Your task to perform on an android device: move a message to another label in the gmail app Image 0: 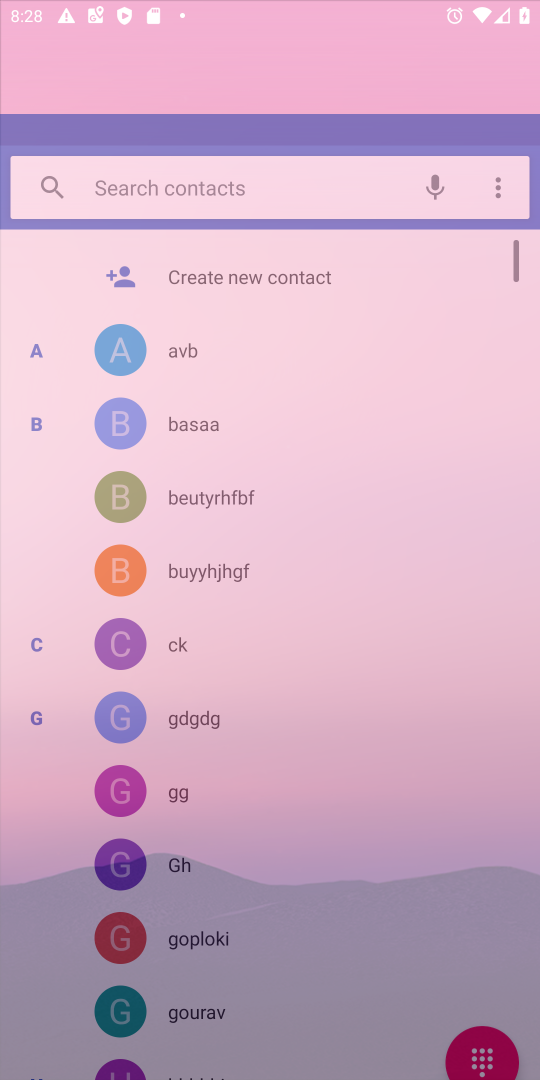
Step 0: press home button
Your task to perform on an android device: move a message to another label in the gmail app Image 1: 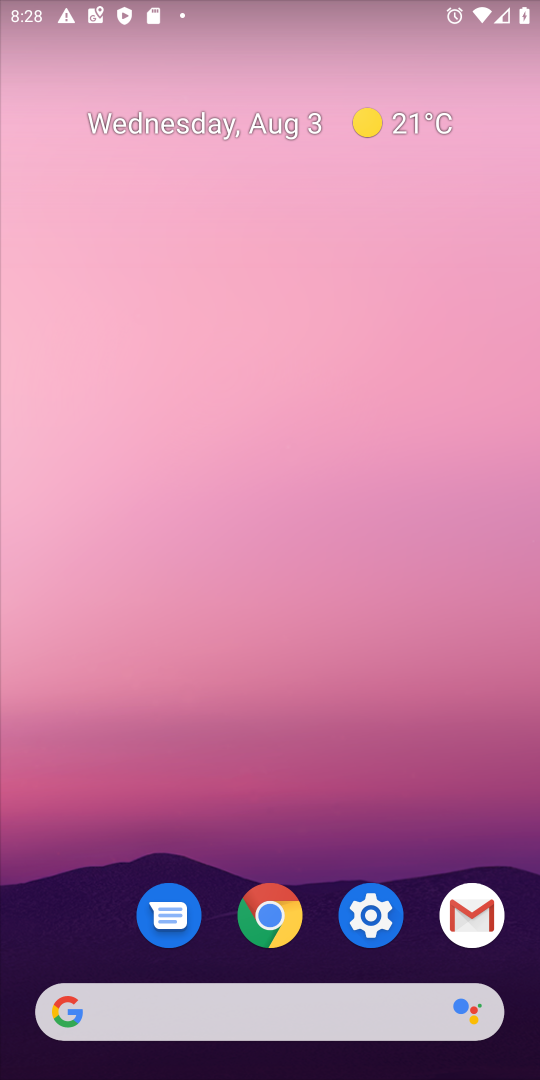
Step 1: drag from (389, 910) to (383, 252)
Your task to perform on an android device: move a message to another label in the gmail app Image 2: 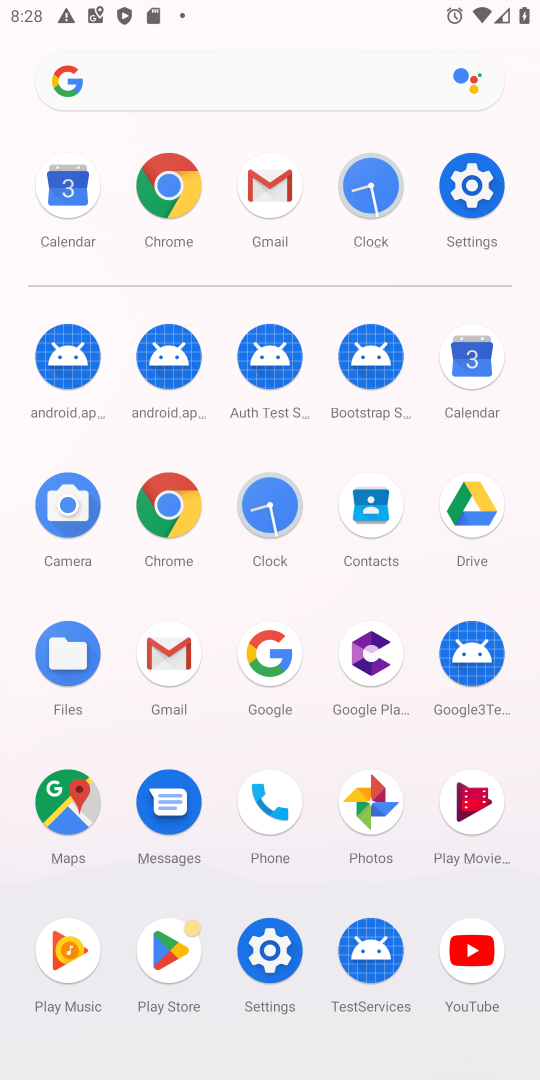
Step 2: click (260, 192)
Your task to perform on an android device: move a message to another label in the gmail app Image 3: 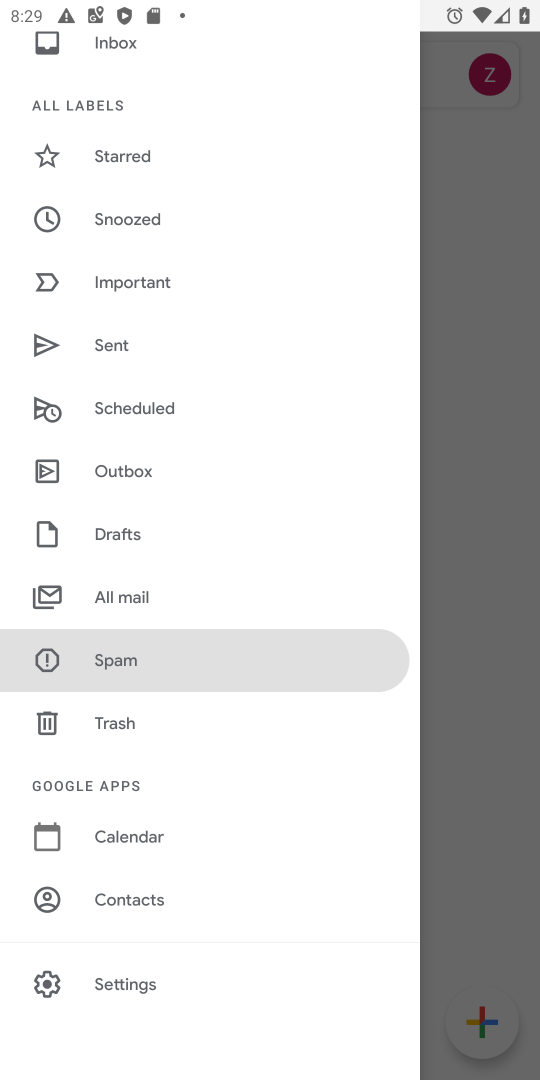
Step 3: click (129, 974)
Your task to perform on an android device: move a message to another label in the gmail app Image 4: 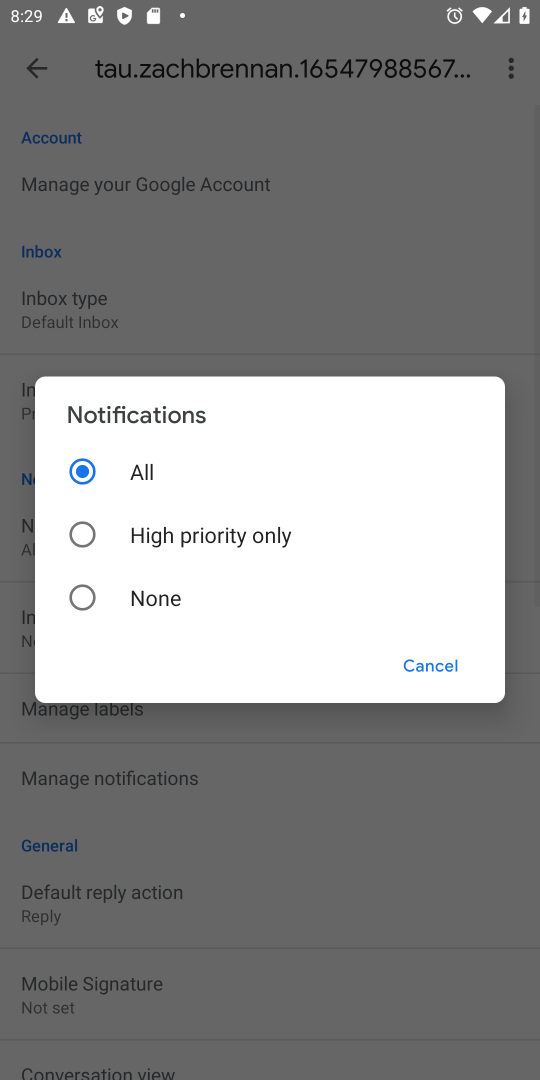
Step 4: click (313, 868)
Your task to perform on an android device: move a message to another label in the gmail app Image 5: 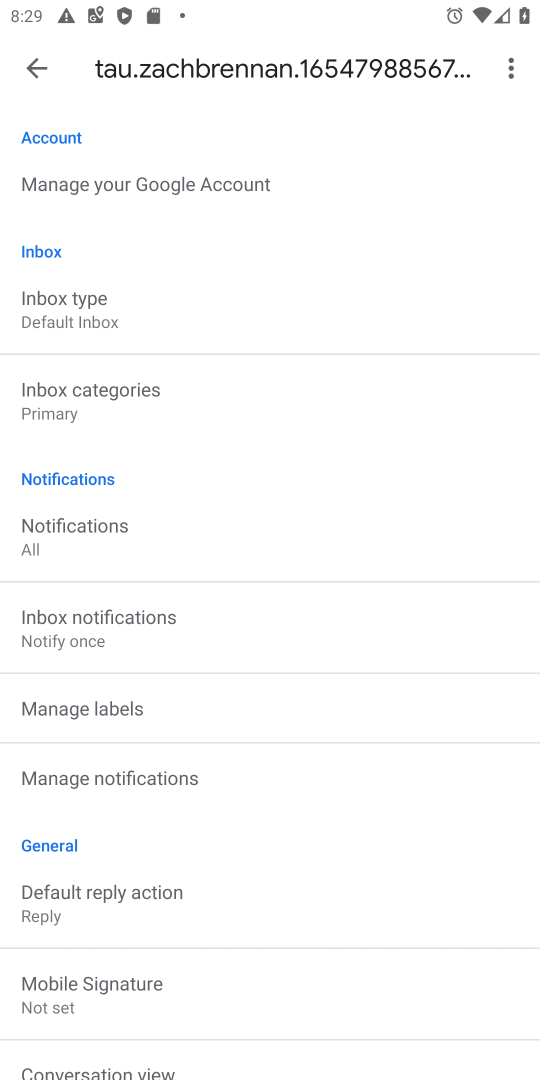
Step 5: click (142, 702)
Your task to perform on an android device: move a message to another label in the gmail app Image 6: 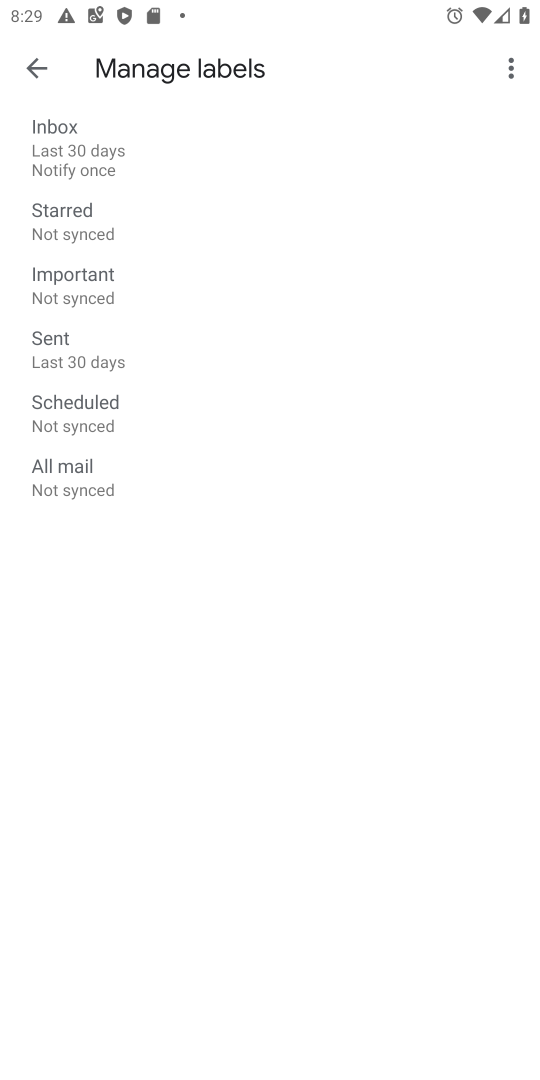
Step 6: click (63, 320)
Your task to perform on an android device: move a message to another label in the gmail app Image 7: 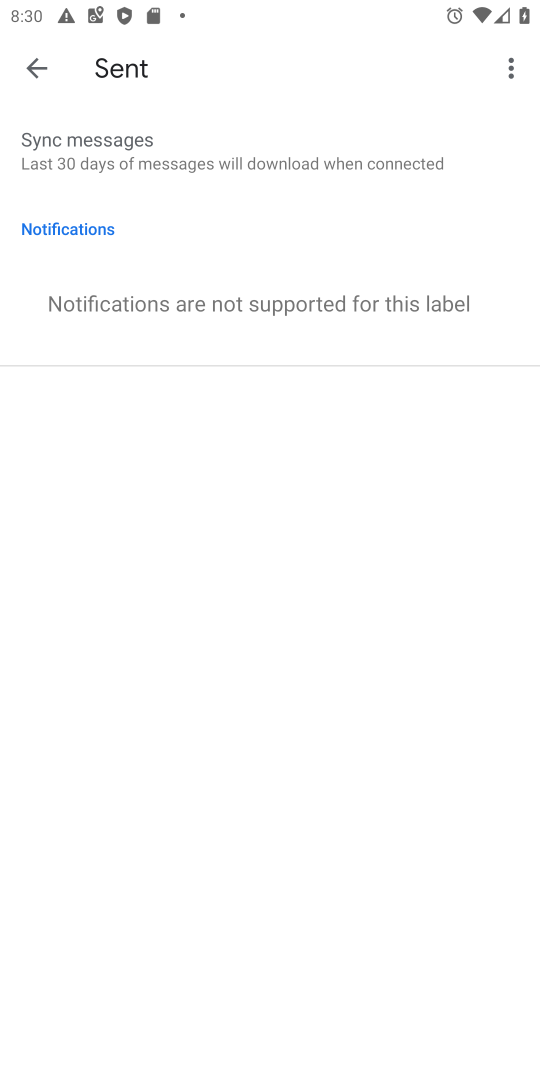
Step 7: task complete